Your task to perform on an android device: Go to display settings Image 0: 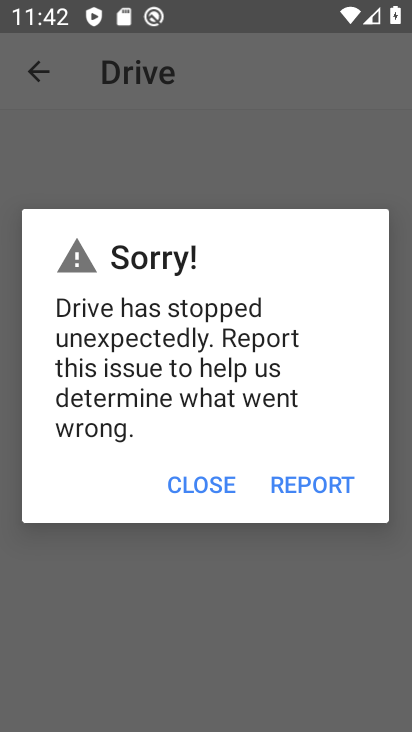
Step 0: press home button
Your task to perform on an android device: Go to display settings Image 1: 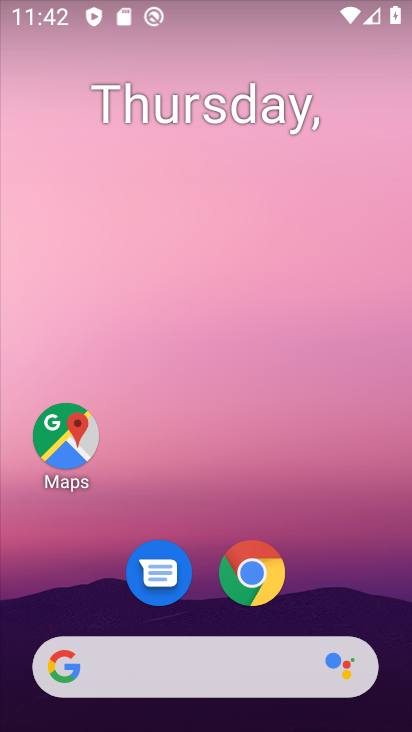
Step 1: drag from (327, 515) to (354, 14)
Your task to perform on an android device: Go to display settings Image 2: 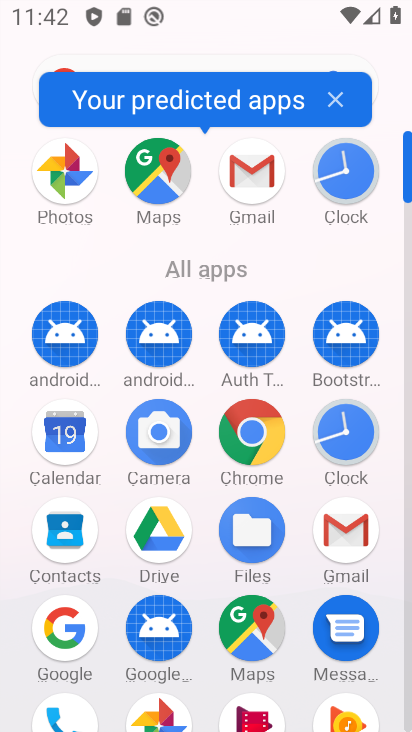
Step 2: drag from (200, 476) to (196, 96)
Your task to perform on an android device: Go to display settings Image 3: 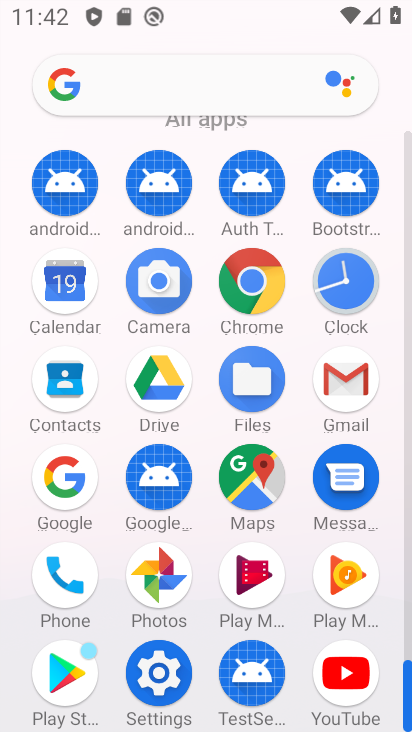
Step 3: click (166, 678)
Your task to perform on an android device: Go to display settings Image 4: 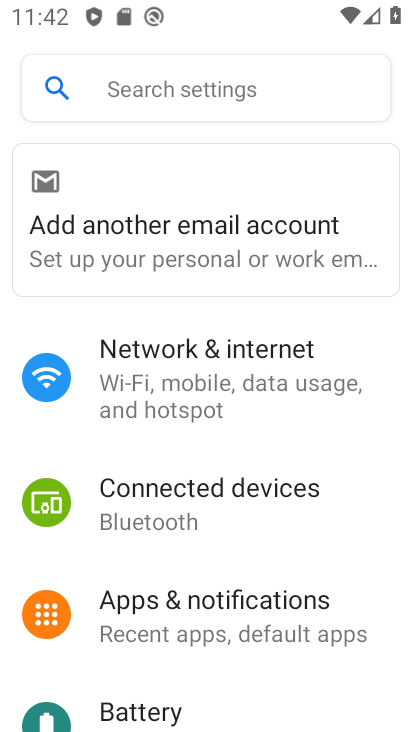
Step 4: drag from (238, 635) to (275, 144)
Your task to perform on an android device: Go to display settings Image 5: 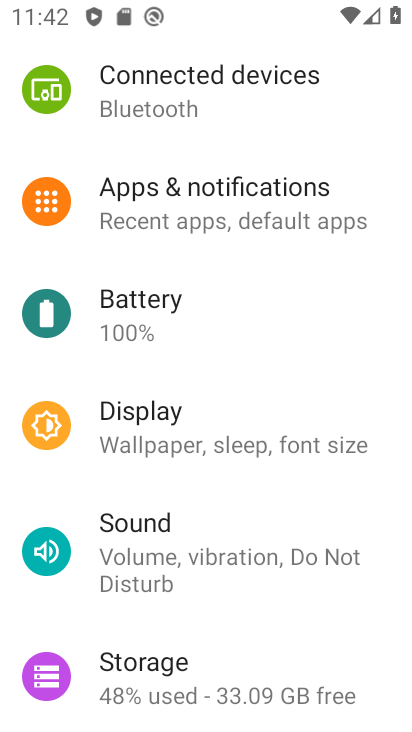
Step 5: click (177, 420)
Your task to perform on an android device: Go to display settings Image 6: 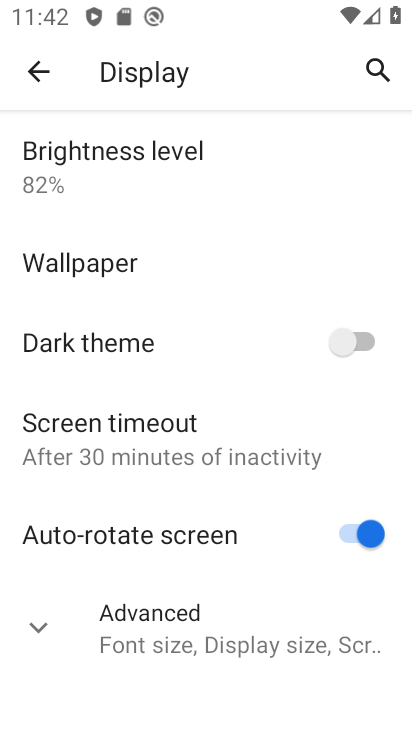
Step 6: task complete